Your task to perform on an android device: turn on improve location accuracy Image 0: 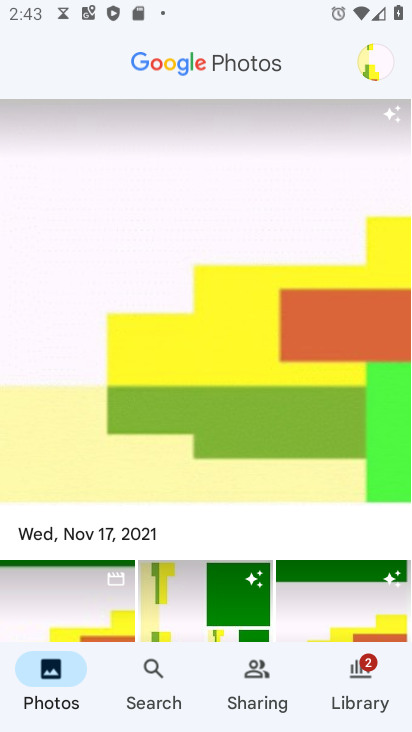
Step 0: press back button
Your task to perform on an android device: turn on improve location accuracy Image 1: 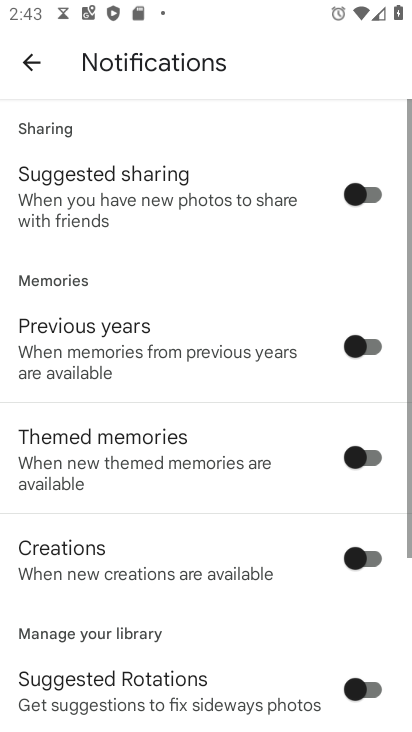
Step 1: press back button
Your task to perform on an android device: turn on improve location accuracy Image 2: 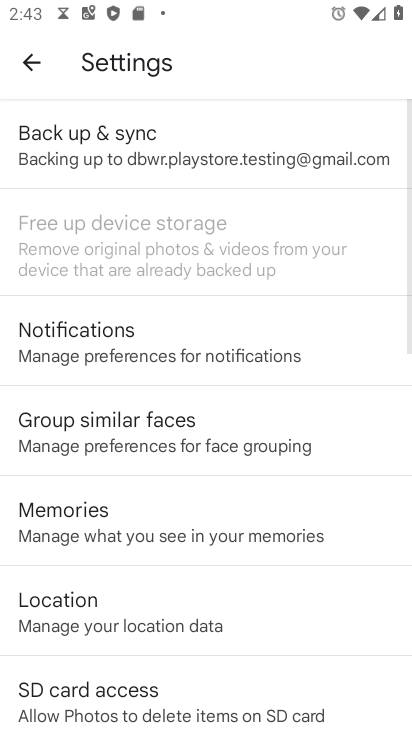
Step 2: press home button
Your task to perform on an android device: turn on improve location accuracy Image 3: 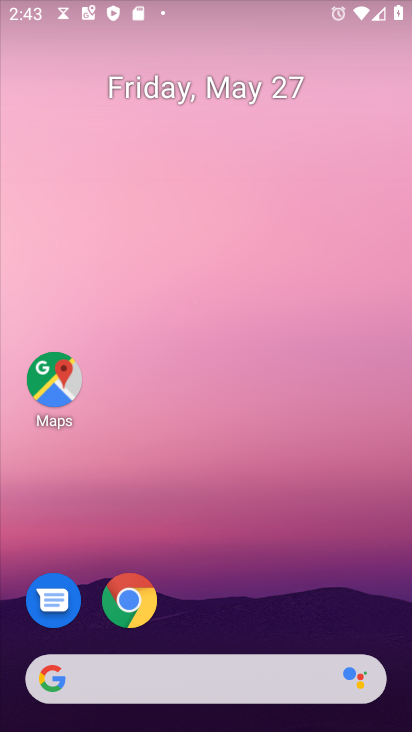
Step 3: drag from (206, 536) to (194, 29)
Your task to perform on an android device: turn on improve location accuracy Image 4: 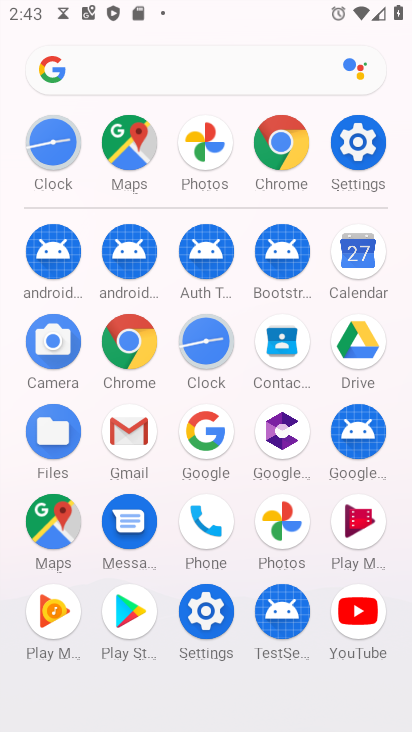
Step 4: click (202, 608)
Your task to perform on an android device: turn on improve location accuracy Image 5: 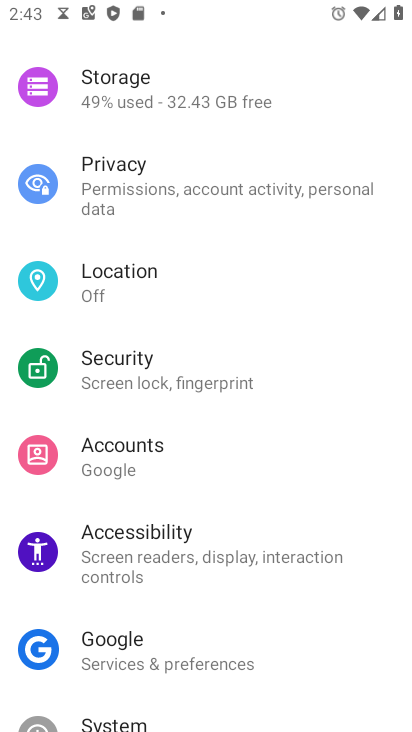
Step 5: click (162, 282)
Your task to perform on an android device: turn on improve location accuracy Image 6: 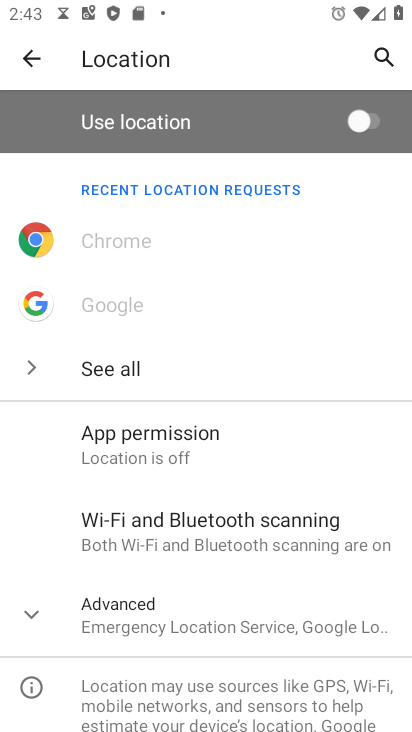
Step 6: click (76, 583)
Your task to perform on an android device: turn on improve location accuracy Image 7: 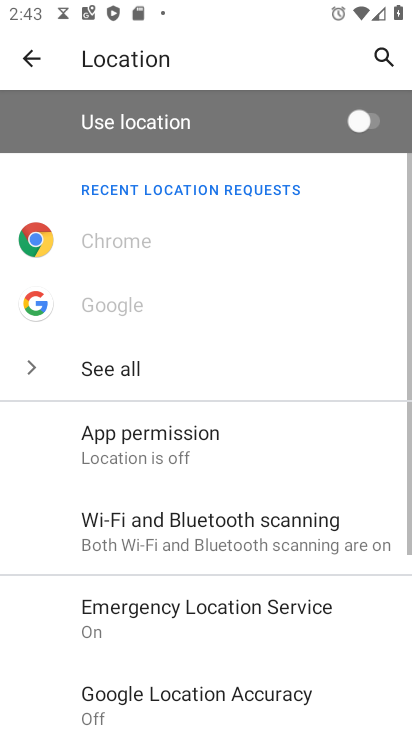
Step 7: drag from (215, 589) to (222, 234)
Your task to perform on an android device: turn on improve location accuracy Image 8: 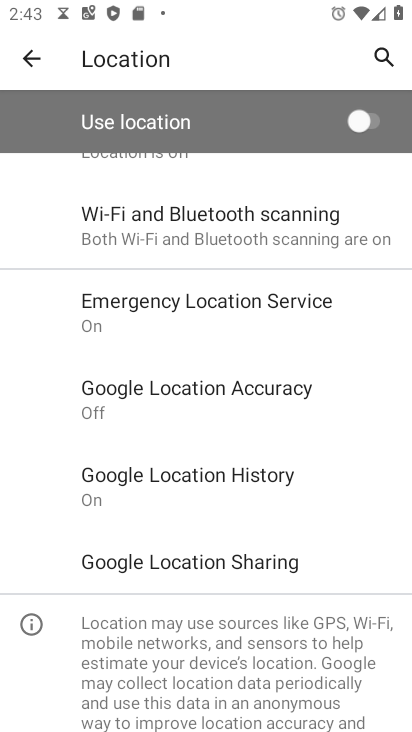
Step 8: click (225, 393)
Your task to perform on an android device: turn on improve location accuracy Image 9: 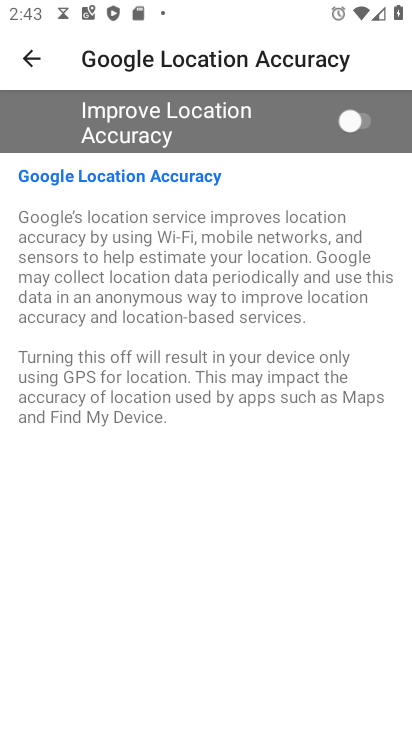
Step 9: click (353, 103)
Your task to perform on an android device: turn on improve location accuracy Image 10: 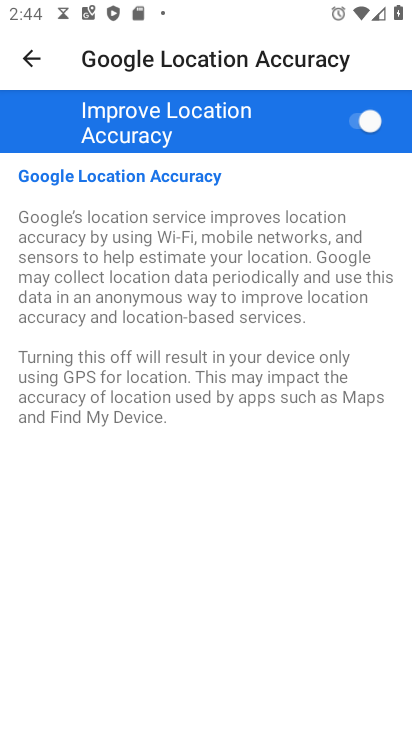
Step 10: task complete